Your task to perform on an android device: open device folders in google photos Image 0: 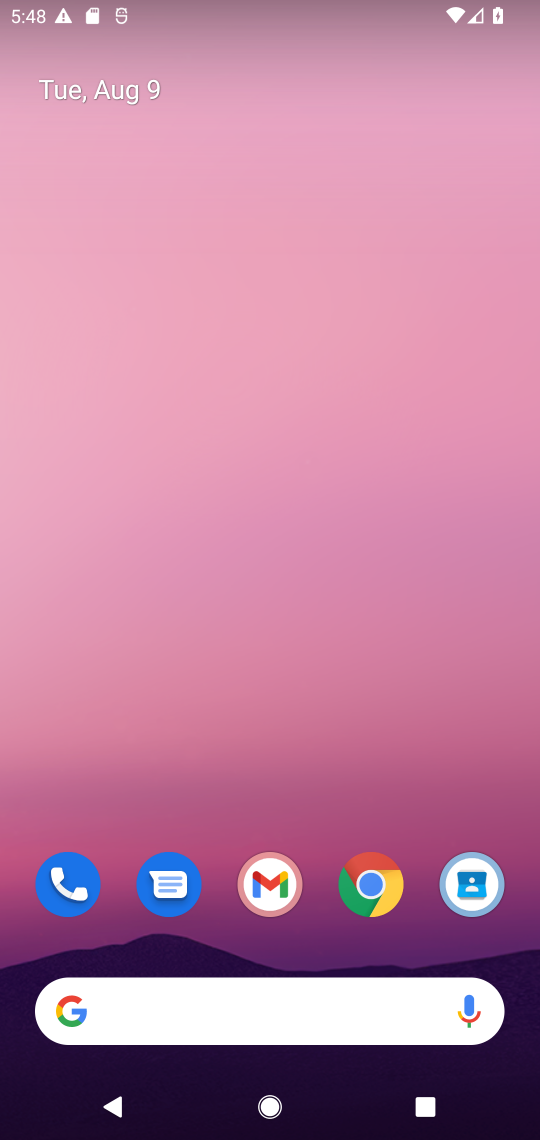
Step 0: drag from (295, 1026) to (372, 273)
Your task to perform on an android device: open device folders in google photos Image 1: 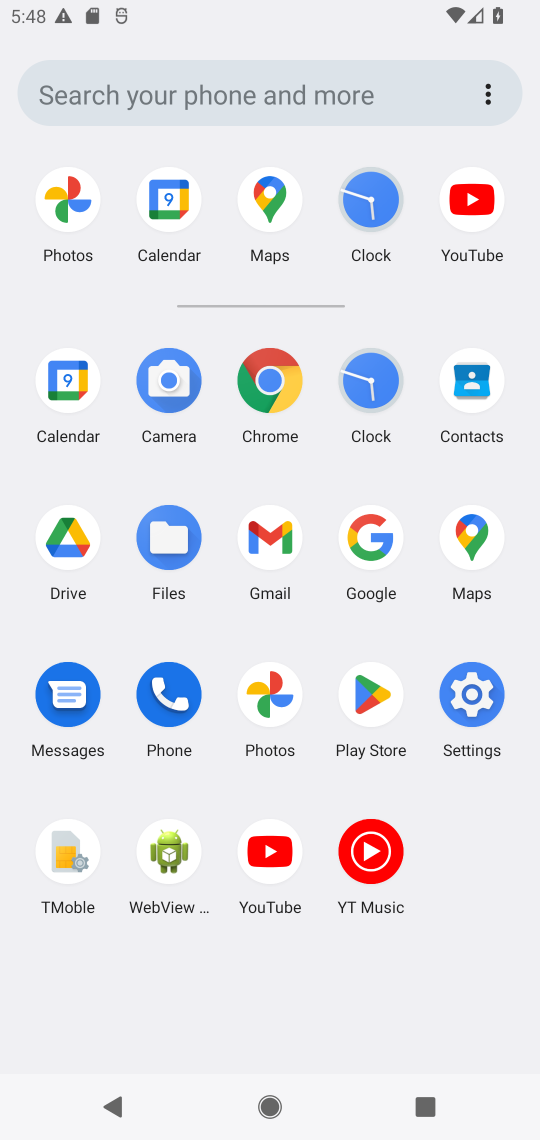
Step 1: click (70, 202)
Your task to perform on an android device: open device folders in google photos Image 2: 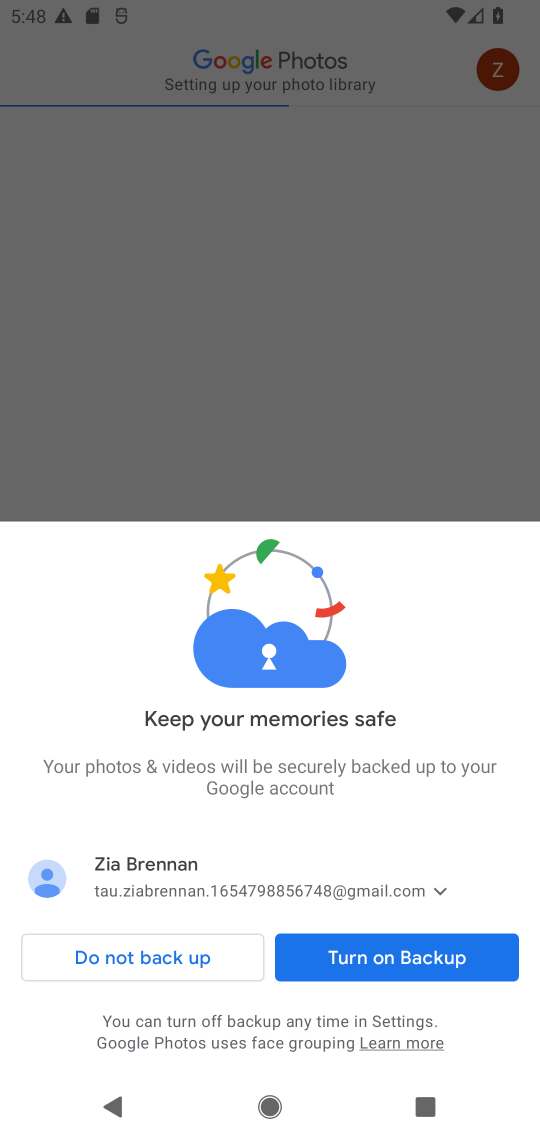
Step 2: click (331, 968)
Your task to perform on an android device: open device folders in google photos Image 3: 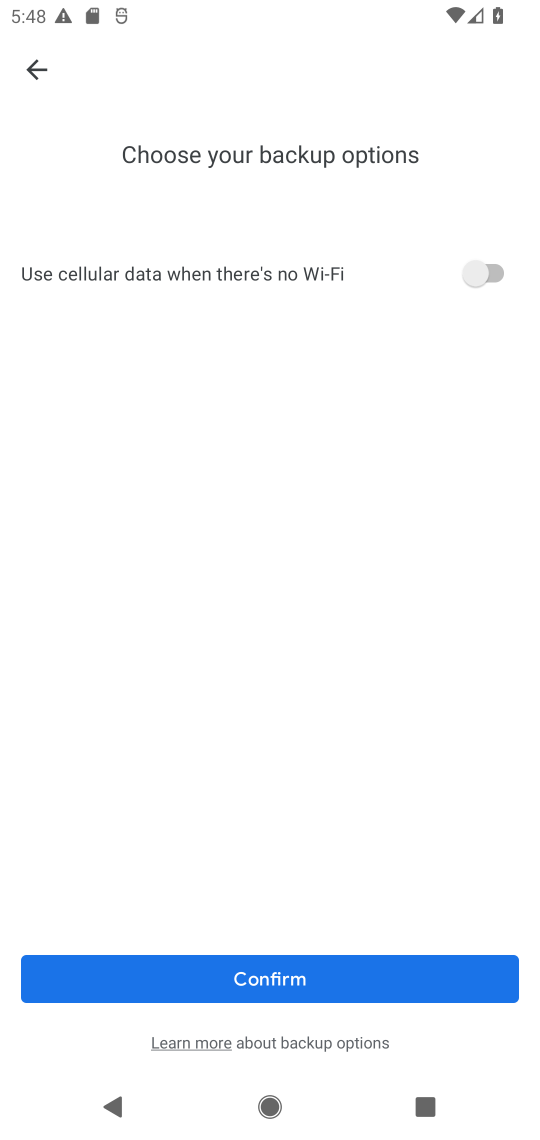
Step 3: click (486, 281)
Your task to perform on an android device: open device folders in google photos Image 4: 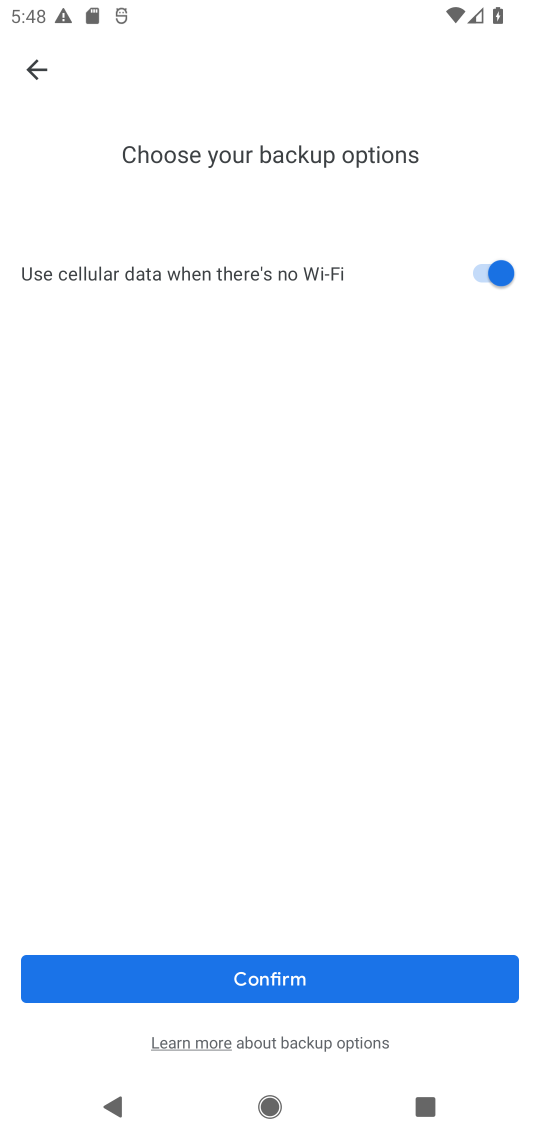
Step 4: click (271, 968)
Your task to perform on an android device: open device folders in google photos Image 5: 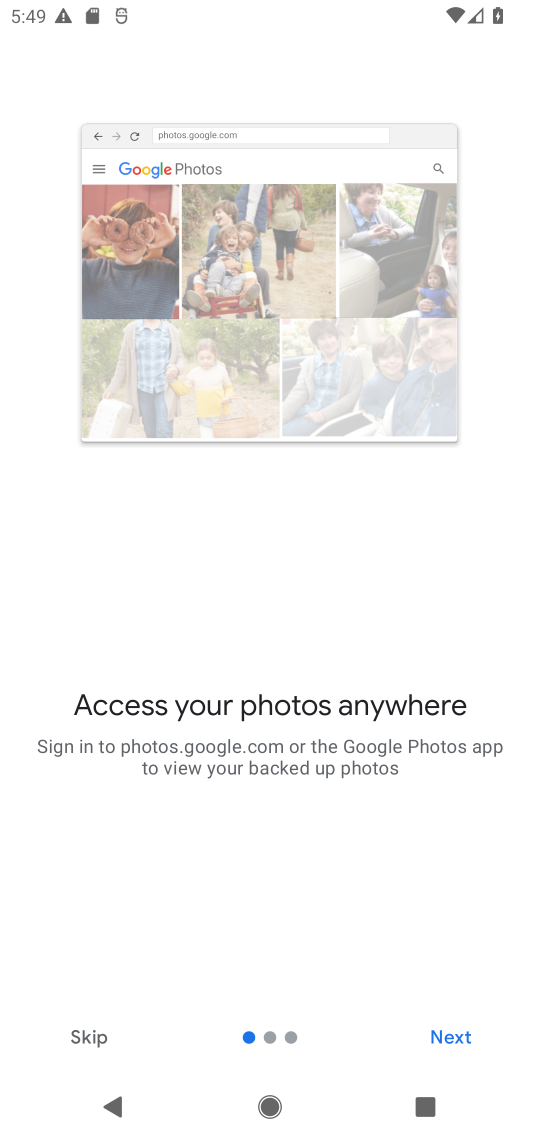
Step 5: click (456, 1042)
Your task to perform on an android device: open device folders in google photos Image 6: 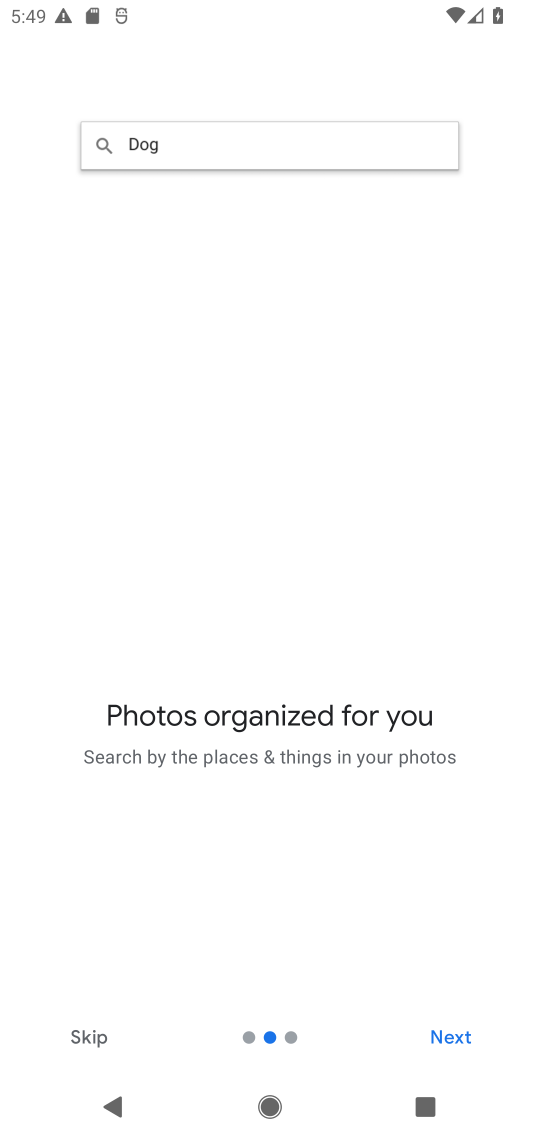
Step 6: click (456, 1042)
Your task to perform on an android device: open device folders in google photos Image 7: 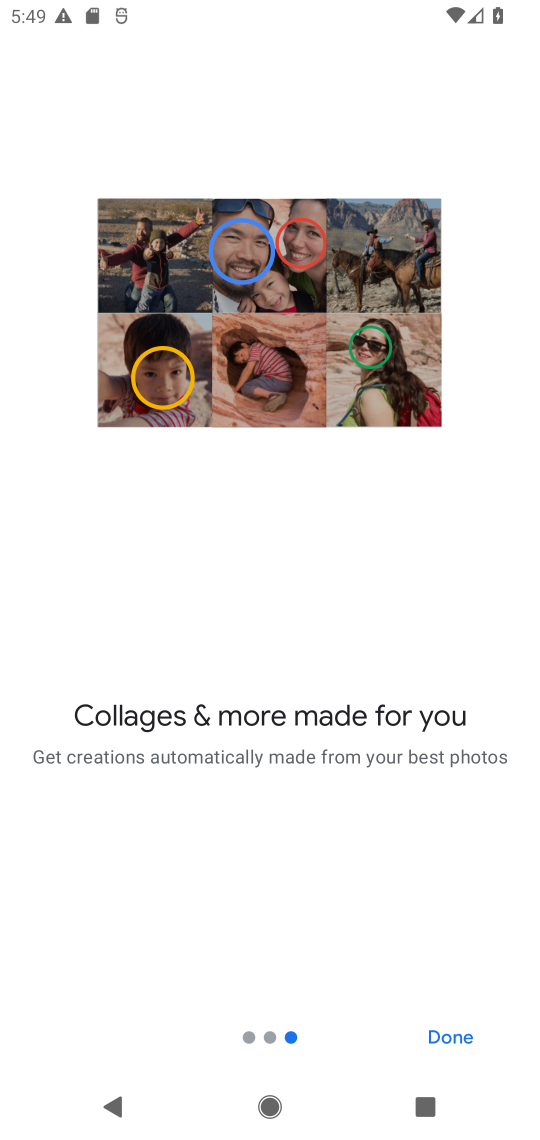
Step 7: click (456, 1042)
Your task to perform on an android device: open device folders in google photos Image 8: 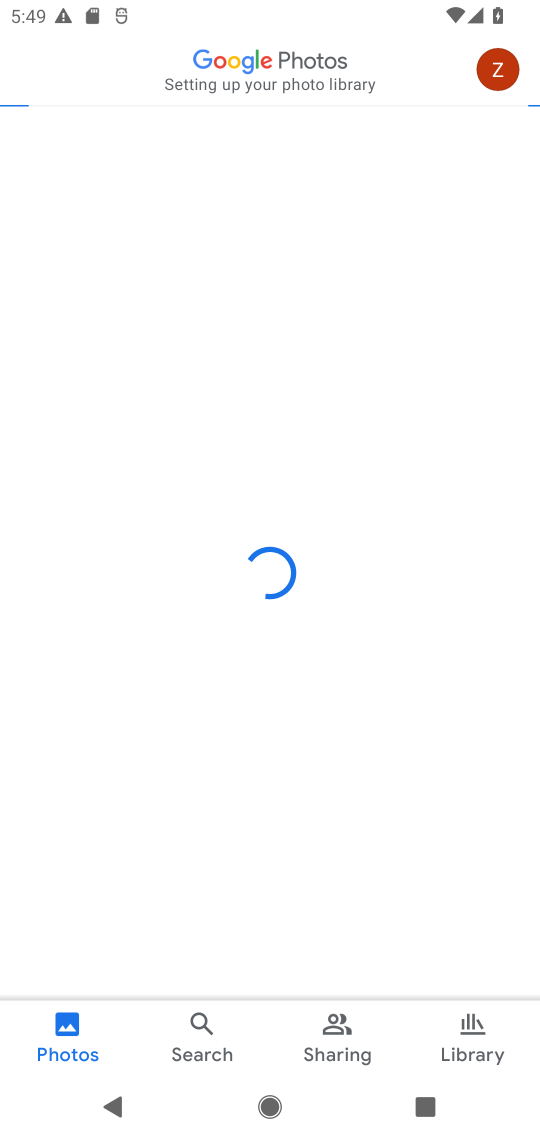
Step 8: click (494, 75)
Your task to perform on an android device: open device folders in google photos Image 9: 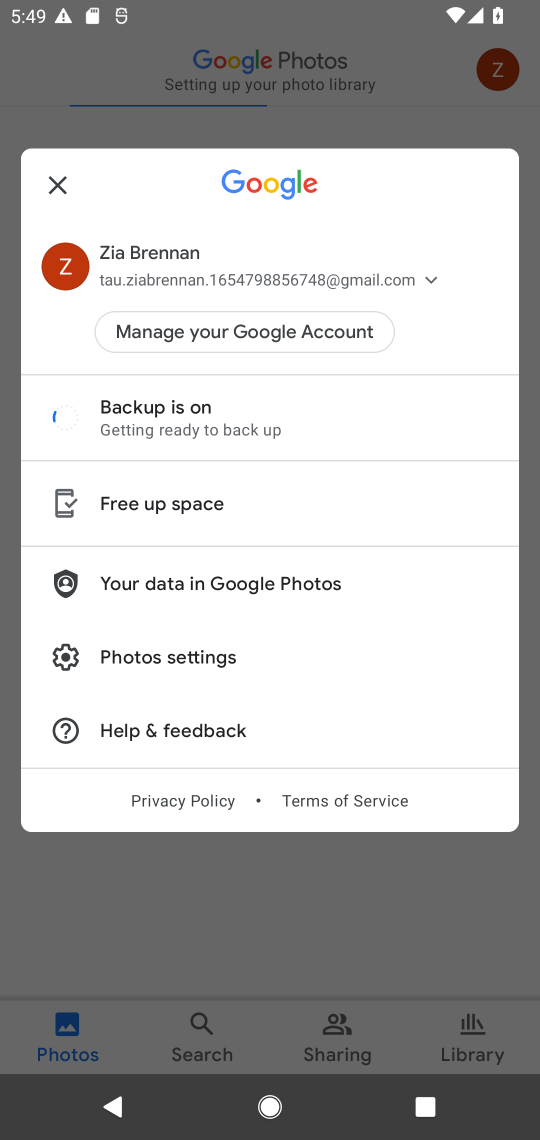
Step 9: click (198, 653)
Your task to perform on an android device: open device folders in google photos Image 10: 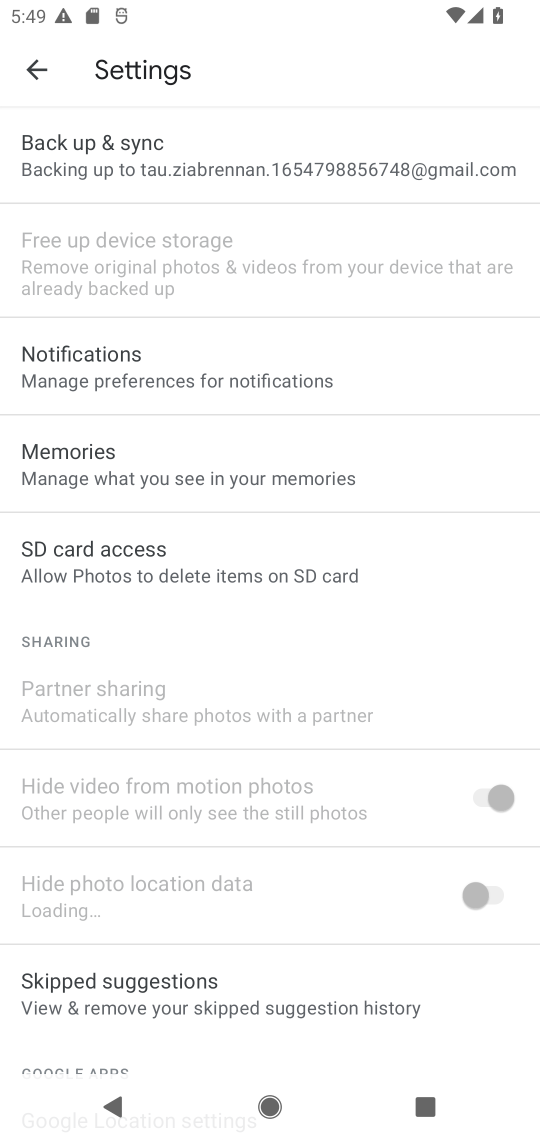
Step 10: task complete